Your task to perform on an android device: change timer sound Image 0: 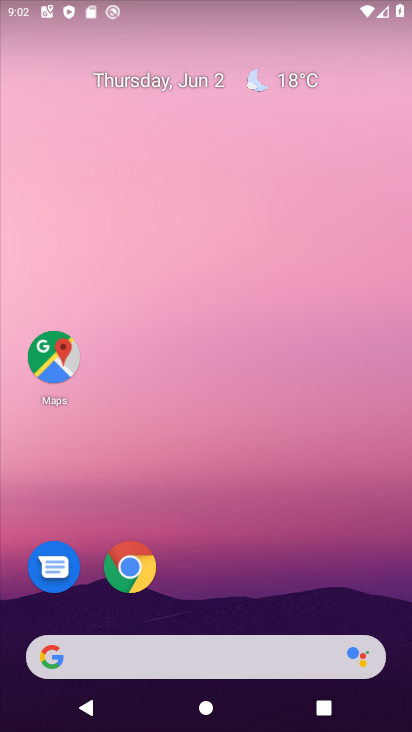
Step 0: press home button
Your task to perform on an android device: change timer sound Image 1: 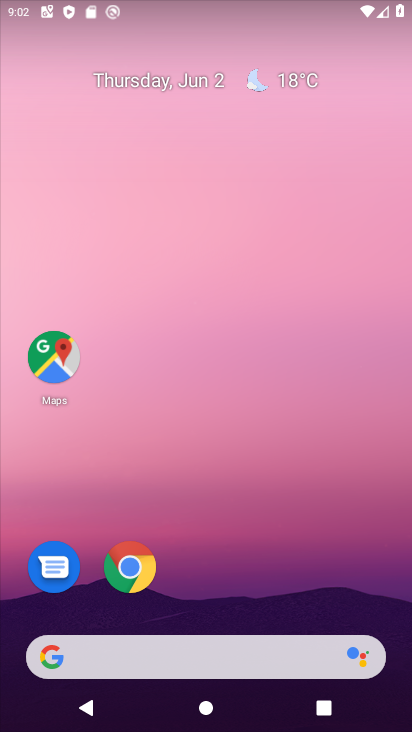
Step 1: drag from (216, 589) to (252, 76)
Your task to perform on an android device: change timer sound Image 2: 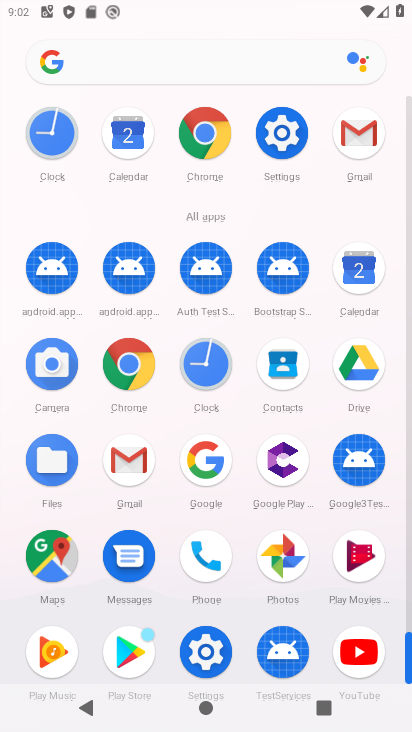
Step 2: click (205, 361)
Your task to perform on an android device: change timer sound Image 3: 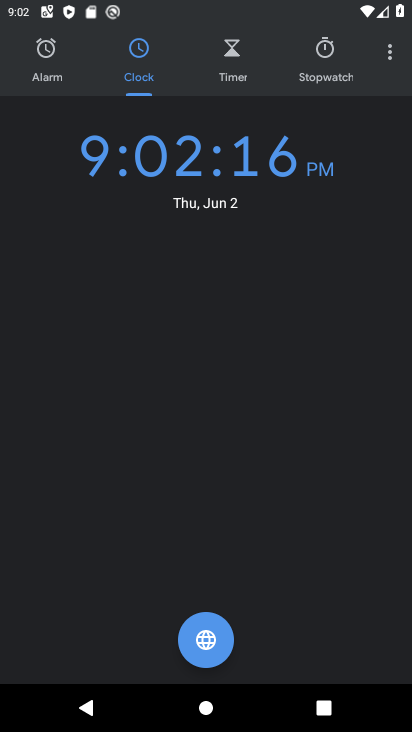
Step 3: click (393, 56)
Your task to perform on an android device: change timer sound Image 4: 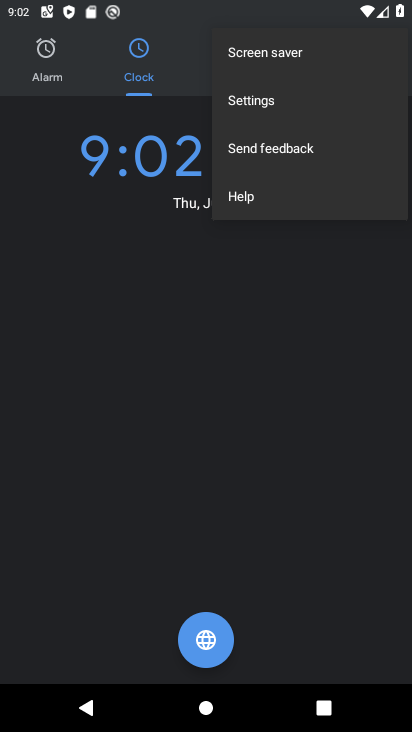
Step 4: click (276, 101)
Your task to perform on an android device: change timer sound Image 5: 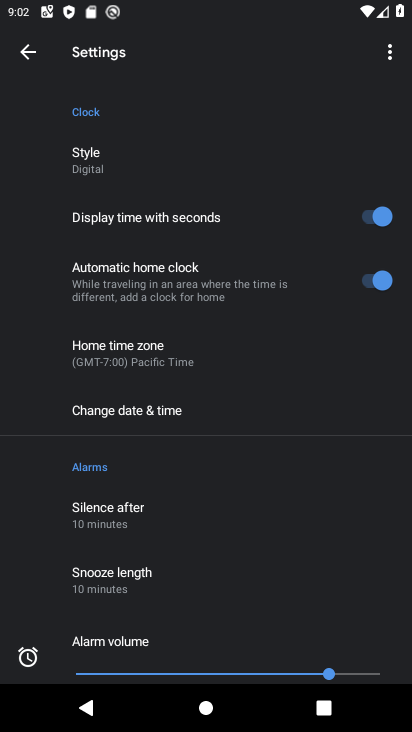
Step 5: drag from (189, 606) to (254, 71)
Your task to perform on an android device: change timer sound Image 6: 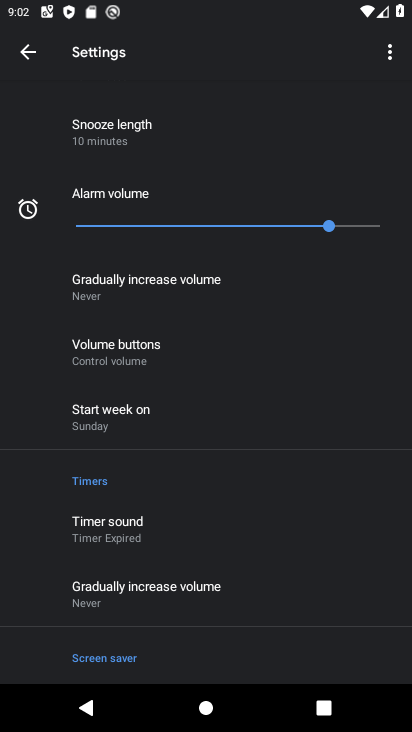
Step 6: click (165, 530)
Your task to perform on an android device: change timer sound Image 7: 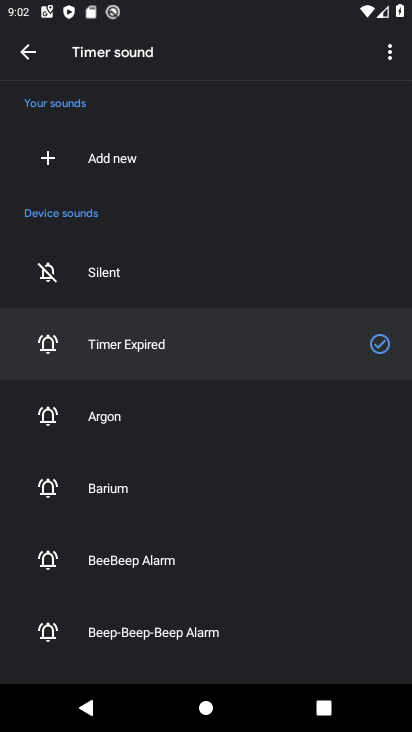
Step 7: click (230, 626)
Your task to perform on an android device: change timer sound Image 8: 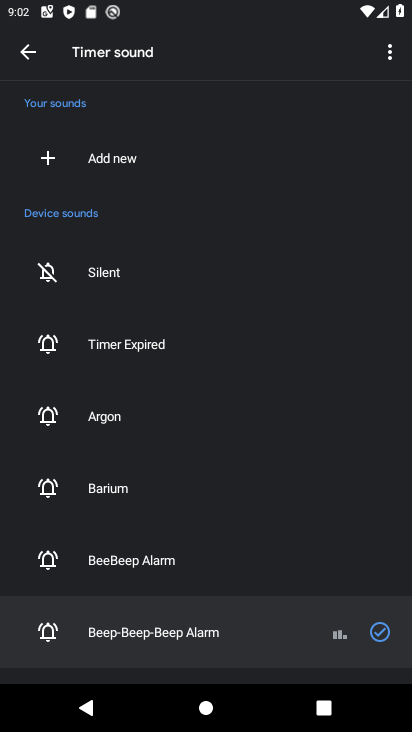
Step 8: task complete